Your task to perform on an android device: Go to sound settings Image 0: 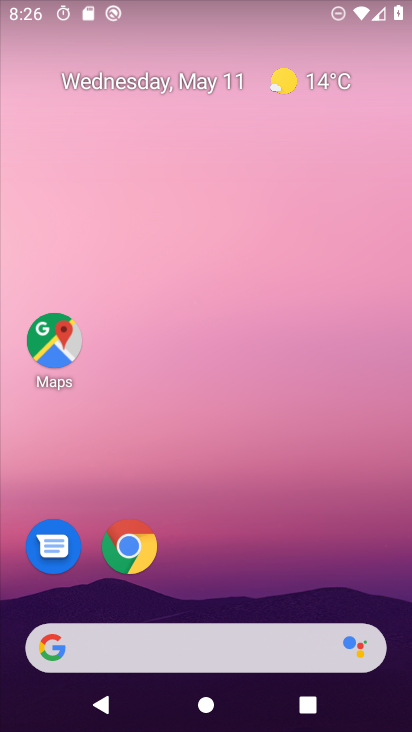
Step 0: drag from (176, 628) to (196, 7)
Your task to perform on an android device: Go to sound settings Image 1: 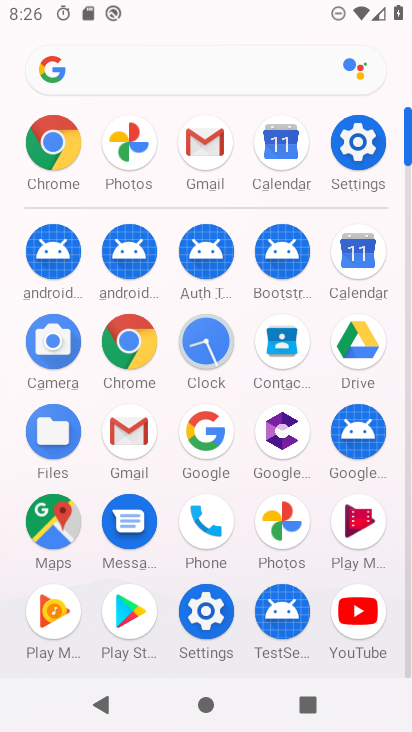
Step 1: click (355, 152)
Your task to perform on an android device: Go to sound settings Image 2: 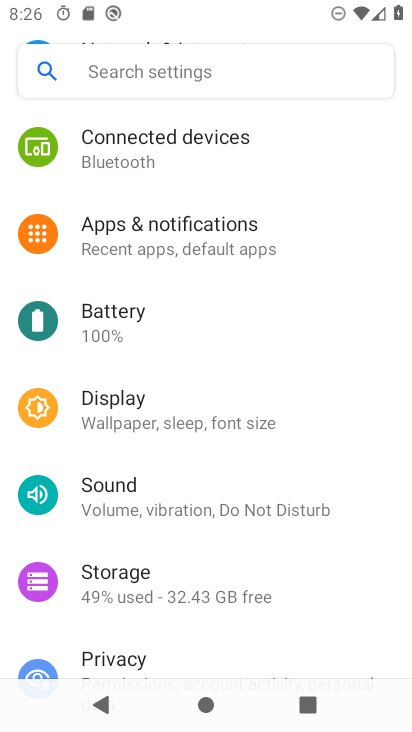
Step 2: click (176, 517)
Your task to perform on an android device: Go to sound settings Image 3: 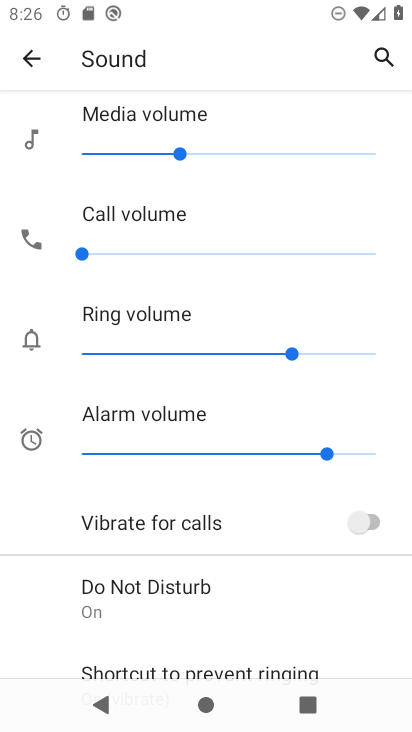
Step 3: task complete